Your task to perform on an android device: empty trash in the gmail app Image 0: 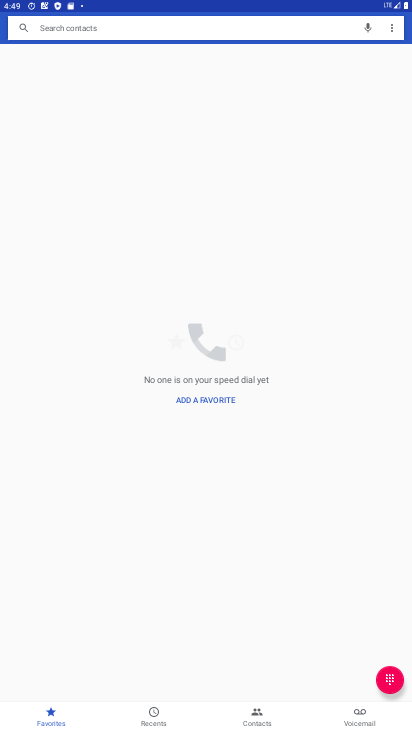
Step 0: press home button
Your task to perform on an android device: empty trash in the gmail app Image 1: 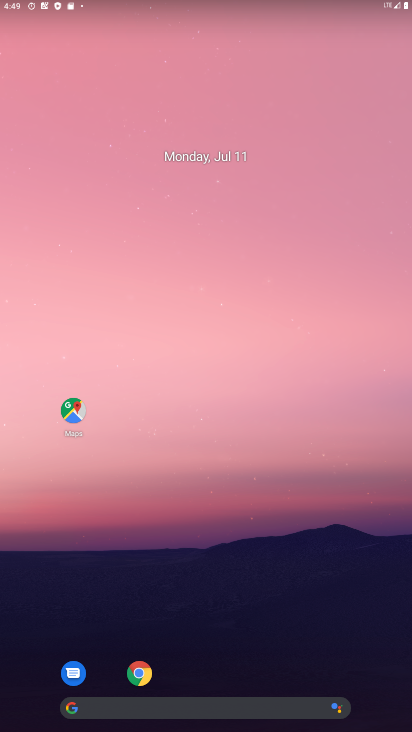
Step 1: drag from (213, 701) to (219, 95)
Your task to perform on an android device: empty trash in the gmail app Image 2: 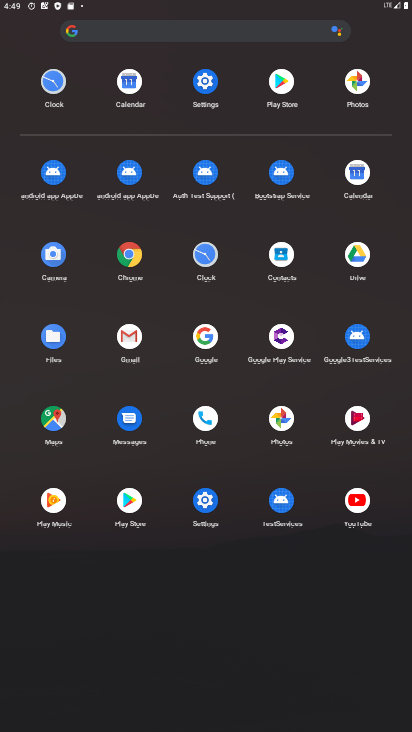
Step 2: click (129, 334)
Your task to perform on an android device: empty trash in the gmail app Image 3: 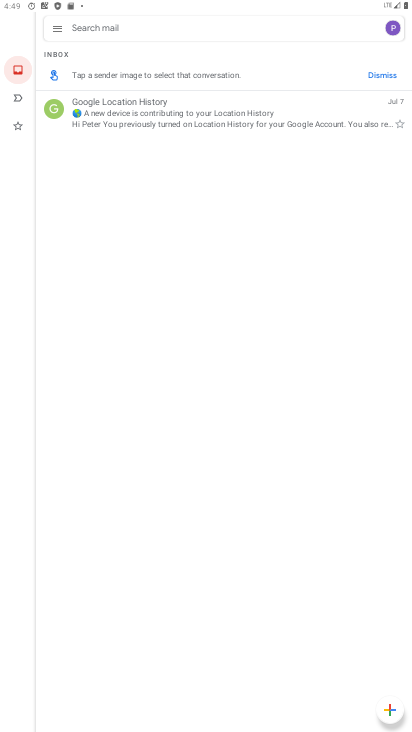
Step 3: click (58, 31)
Your task to perform on an android device: empty trash in the gmail app Image 4: 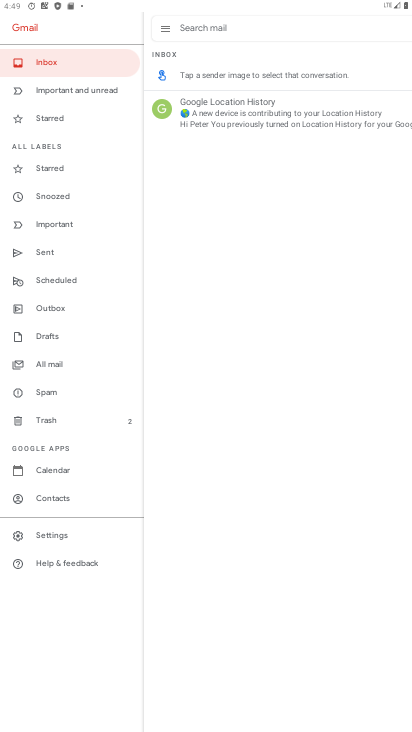
Step 4: click (52, 420)
Your task to perform on an android device: empty trash in the gmail app Image 5: 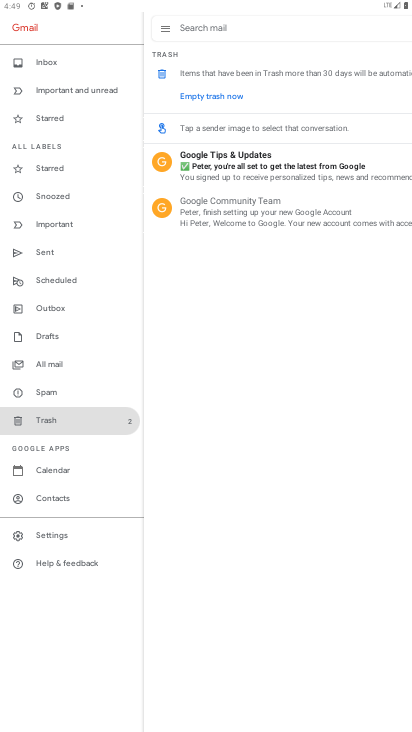
Step 5: click (230, 95)
Your task to perform on an android device: empty trash in the gmail app Image 6: 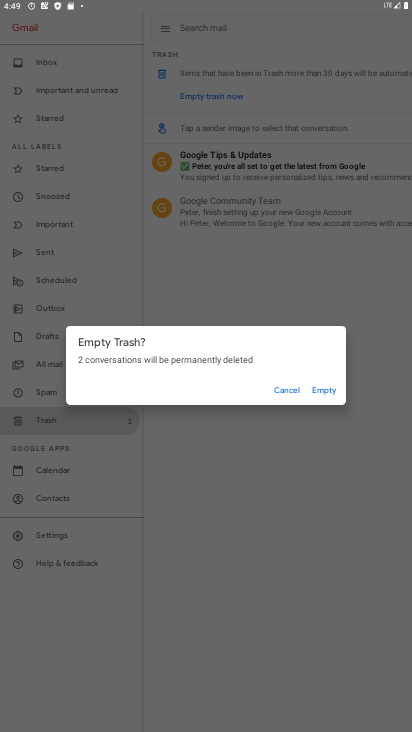
Step 6: click (327, 390)
Your task to perform on an android device: empty trash in the gmail app Image 7: 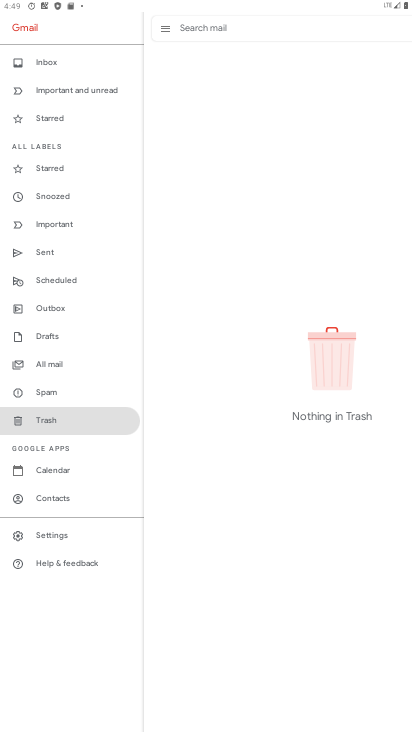
Step 7: task complete